Your task to perform on an android device: Open location settings Image 0: 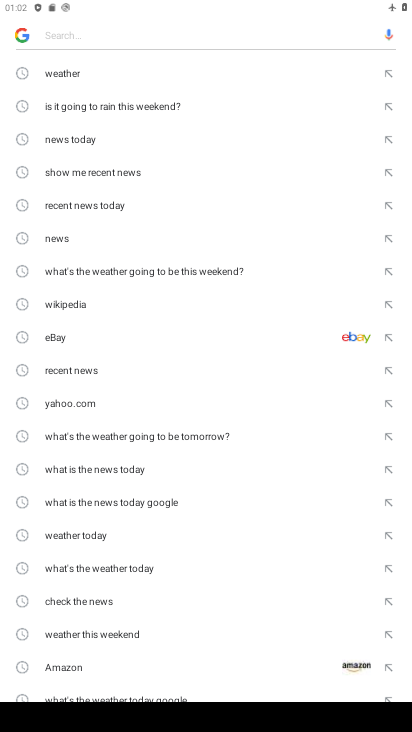
Step 0: press home button
Your task to perform on an android device: Open location settings Image 1: 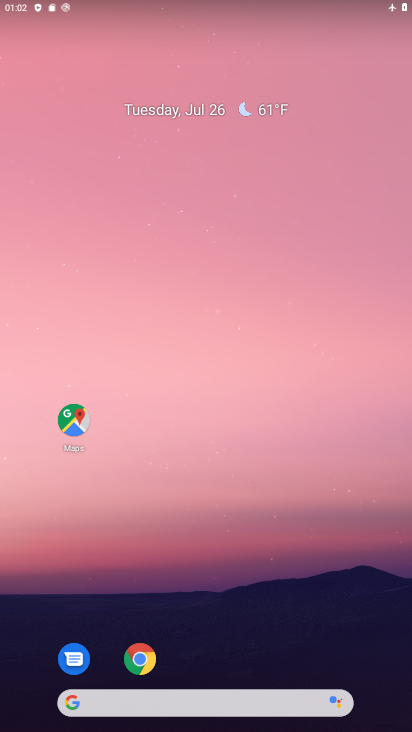
Step 1: drag from (219, 598) to (114, 0)
Your task to perform on an android device: Open location settings Image 2: 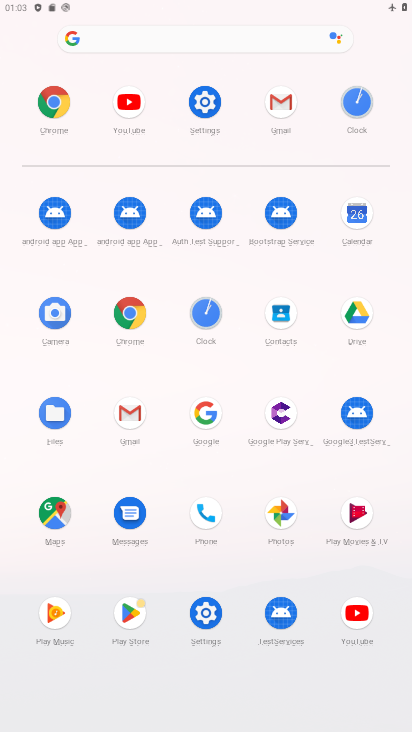
Step 2: click (199, 89)
Your task to perform on an android device: Open location settings Image 3: 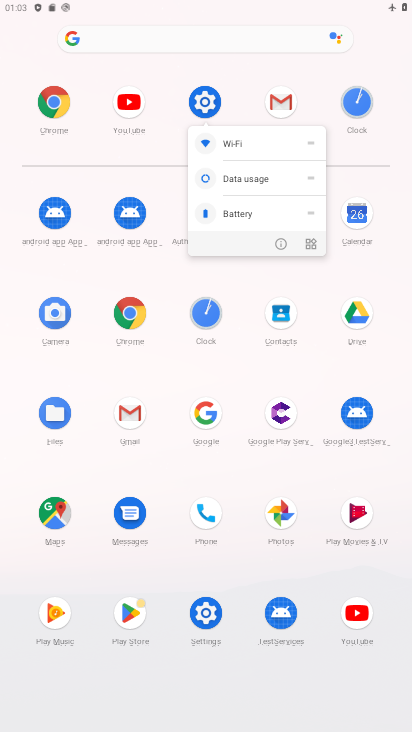
Step 3: click (197, 104)
Your task to perform on an android device: Open location settings Image 4: 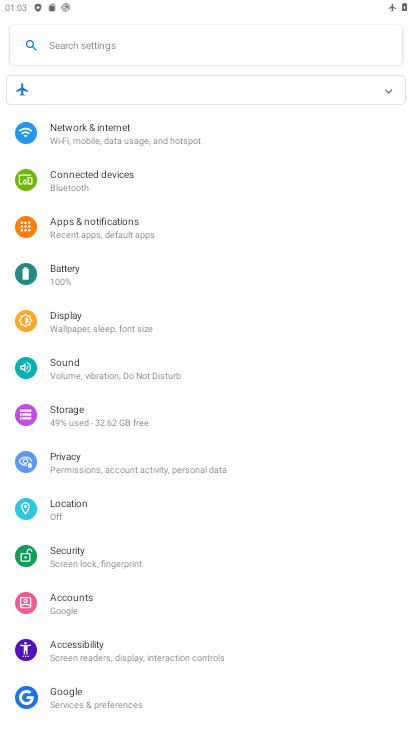
Step 4: click (80, 506)
Your task to perform on an android device: Open location settings Image 5: 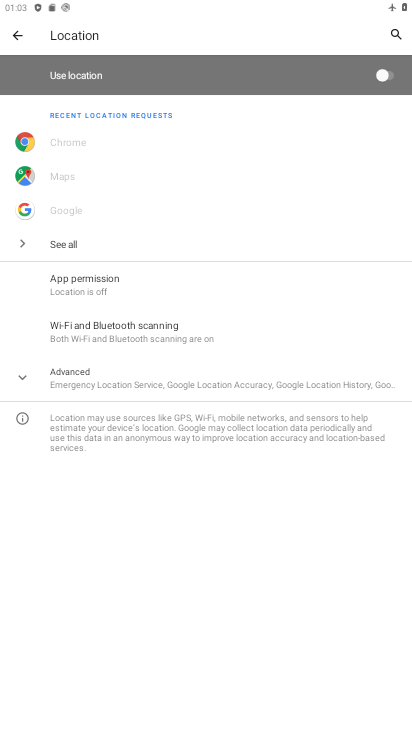
Step 5: click (143, 386)
Your task to perform on an android device: Open location settings Image 6: 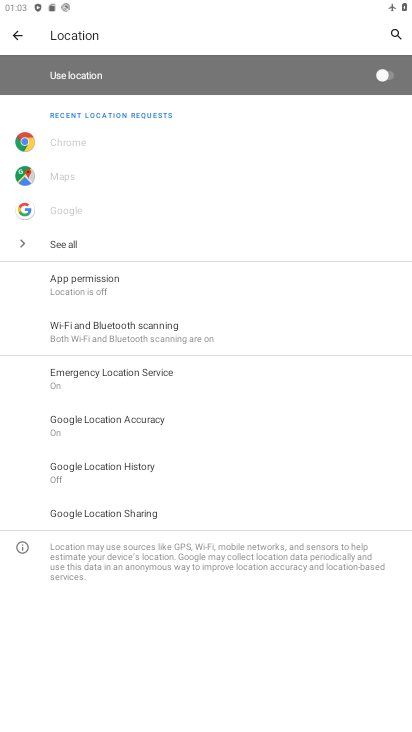
Step 6: task complete